Your task to perform on an android device: Open internet settings Image 0: 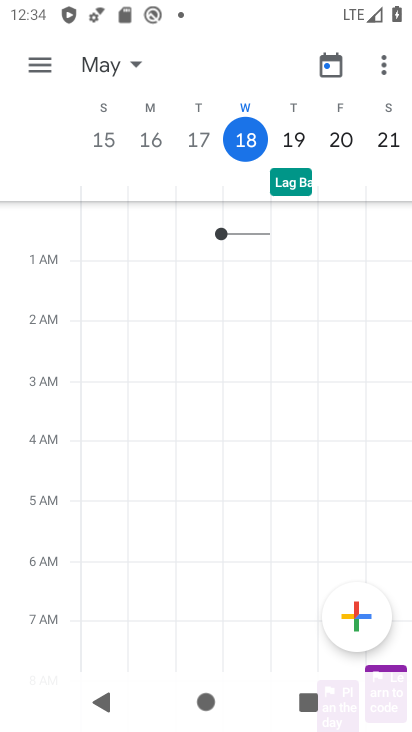
Step 0: press home button
Your task to perform on an android device: Open internet settings Image 1: 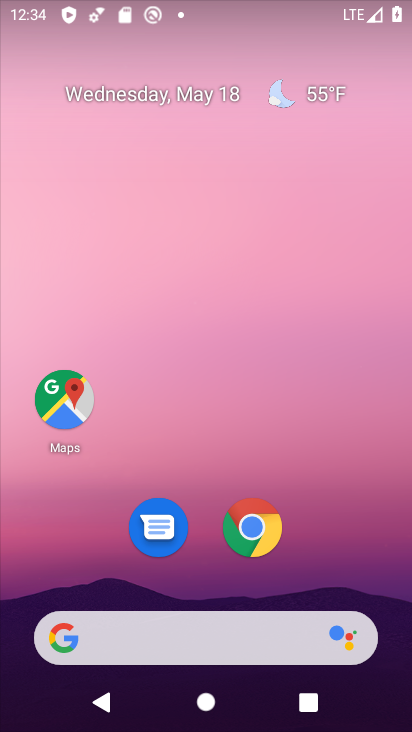
Step 1: drag from (307, 326) to (193, 15)
Your task to perform on an android device: Open internet settings Image 2: 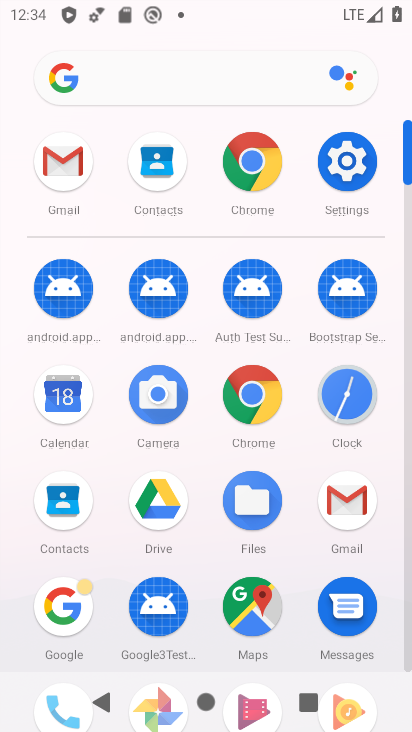
Step 2: click (342, 165)
Your task to perform on an android device: Open internet settings Image 3: 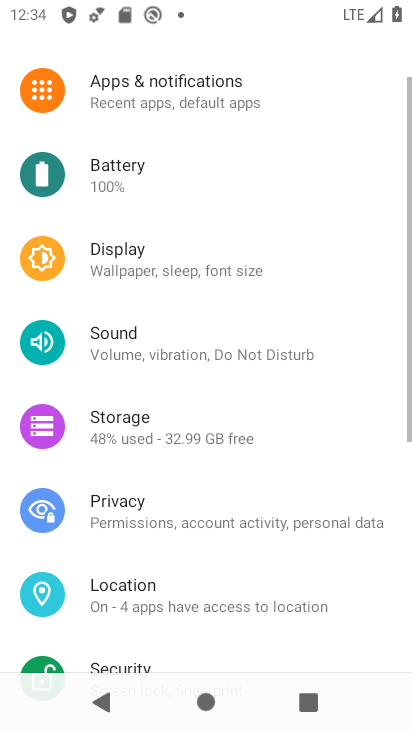
Step 3: drag from (209, 252) to (156, 699)
Your task to perform on an android device: Open internet settings Image 4: 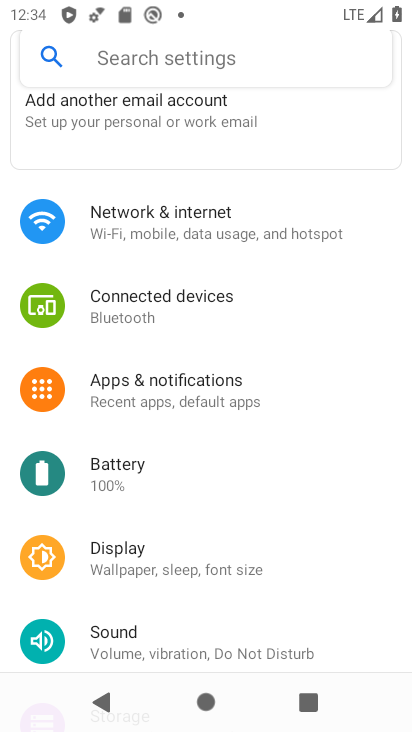
Step 4: click (162, 233)
Your task to perform on an android device: Open internet settings Image 5: 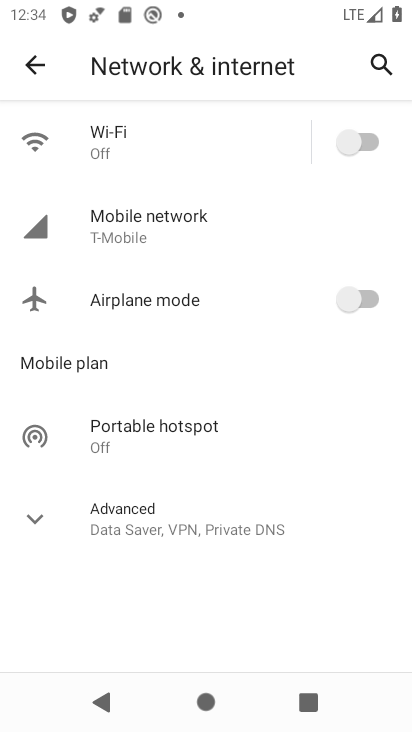
Step 5: task complete